Your task to perform on an android device: show emergency info Image 0: 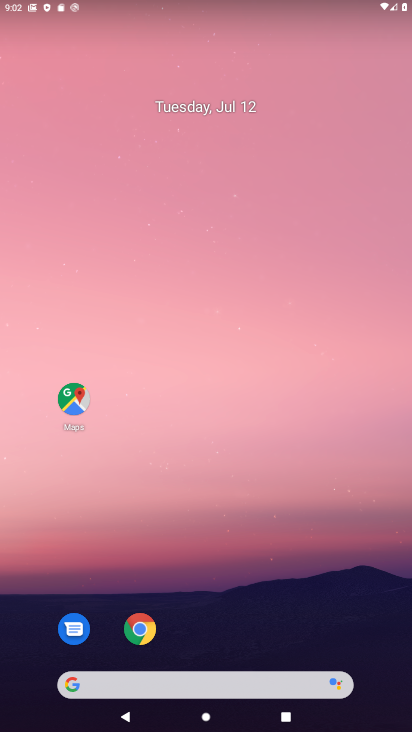
Step 0: drag from (198, 655) to (275, 184)
Your task to perform on an android device: show emergency info Image 1: 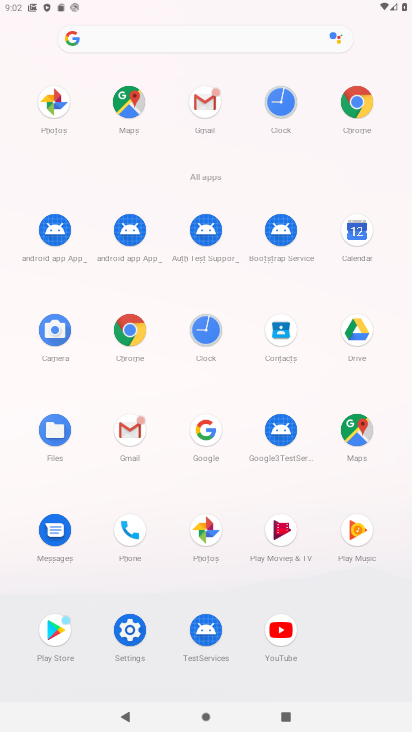
Step 1: click (129, 635)
Your task to perform on an android device: show emergency info Image 2: 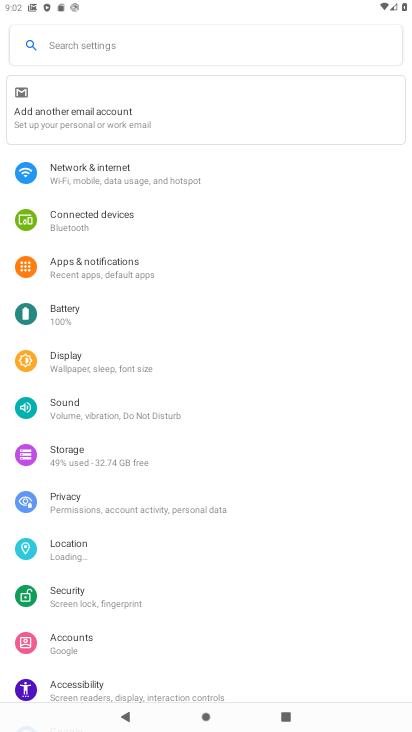
Step 2: drag from (172, 642) to (274, 287)
Your task to perform on an android device: show emergency info Image 3: 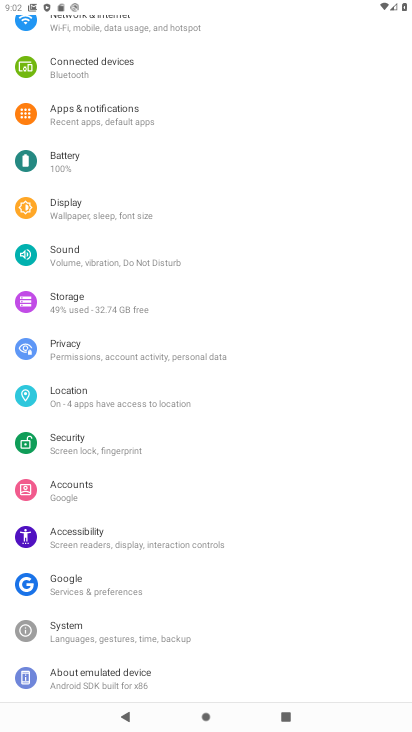
Step 3: drag from (126, 681) to (201, 377)
Your task to perform on an android device: show emergency info Image 4: 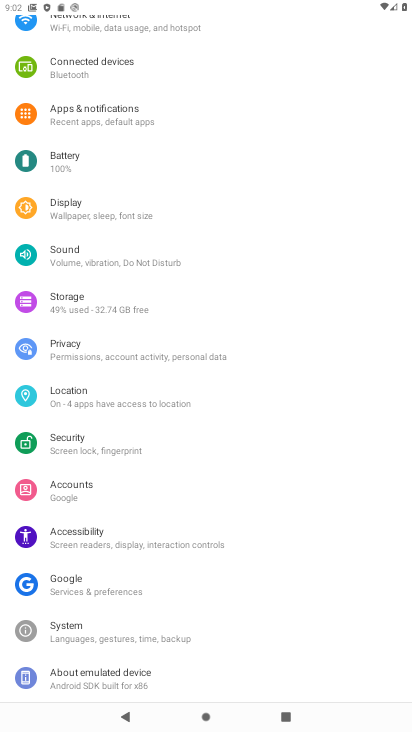
Step 4: click (114, 676)
Your task to perform on an android device: show emergency info Image 5: 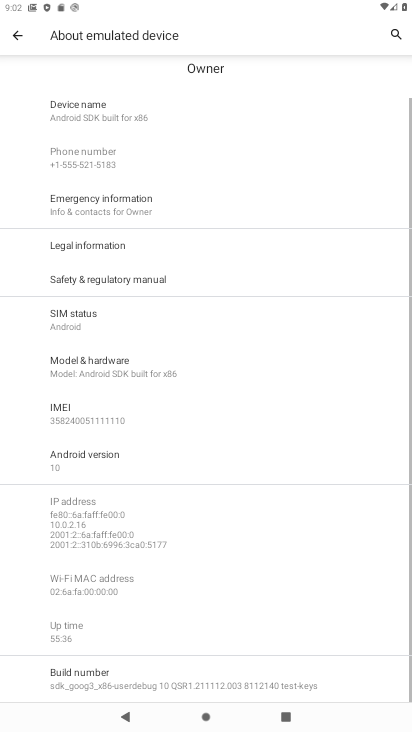
Step 5: click (157, 209)
Your task to perform on an android device: show emergency info Image 6: 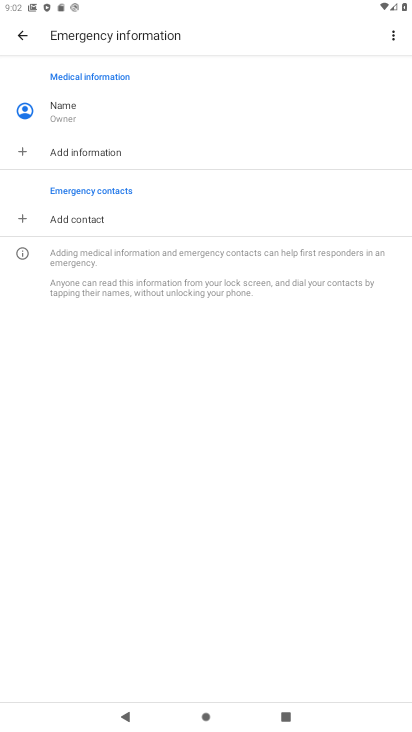
Step 6: task complete